Your task to perform on an android device: turn notification dots off Image 0: 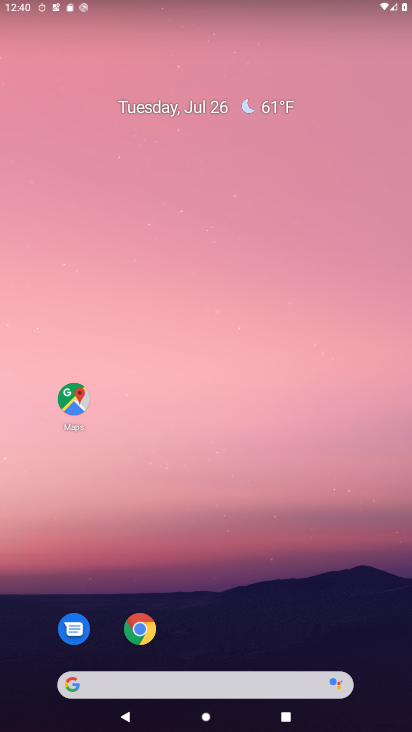
Step 0: drag from (205, 630) to (174, 278)
Your task to perform on an android device: turn notification dots off Image 1: 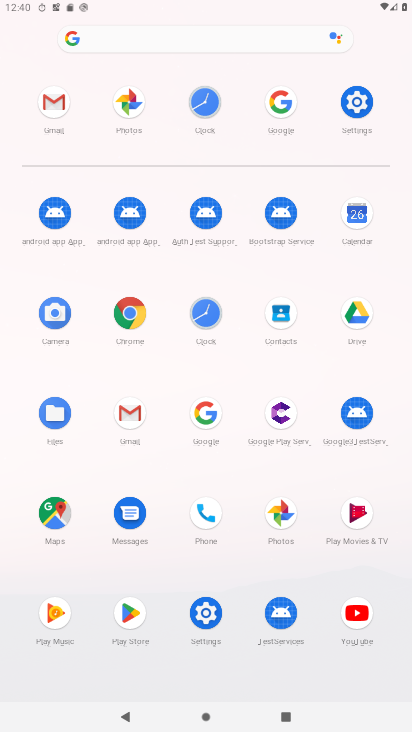
Step 1: click (359, 101)
Your task to perform on an android device: turn notification dots off Image 2: 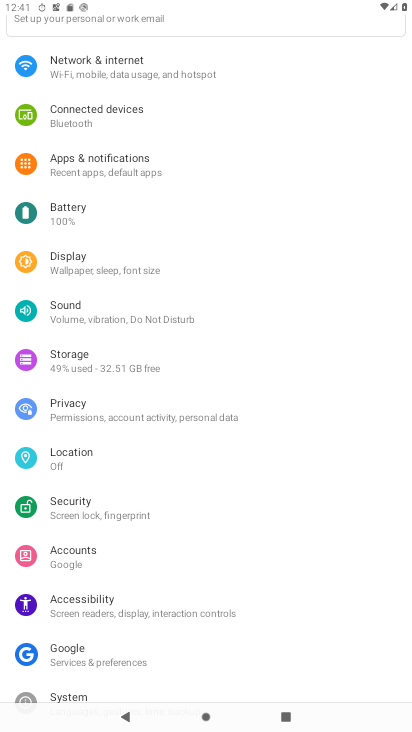
Step 2: click (122, 174)
Your task to perform on an android device: turn notification dots off Image 3: 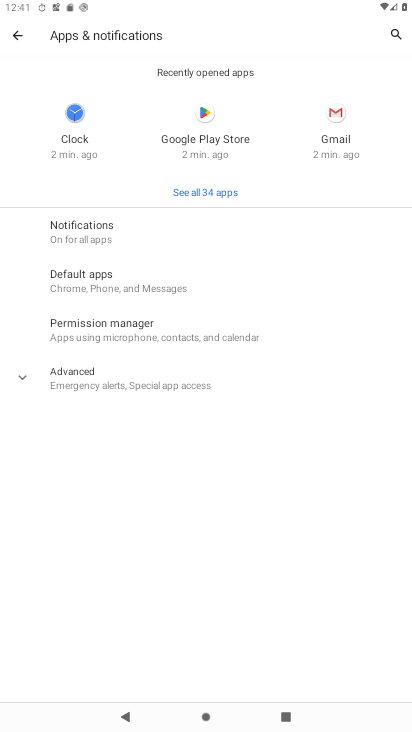
Step 3: click (80, 242)
Your task to perform on an android device: turn notification dots off Image 4: 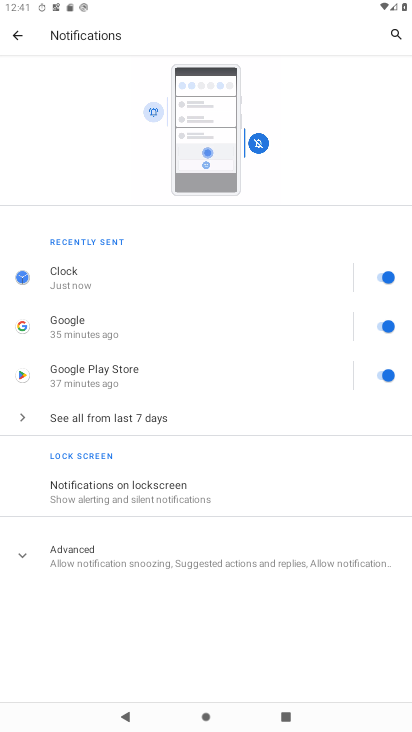
Step 4: click (109, 542)
Your task to perform on an android device: turn notification dots off Image 5: 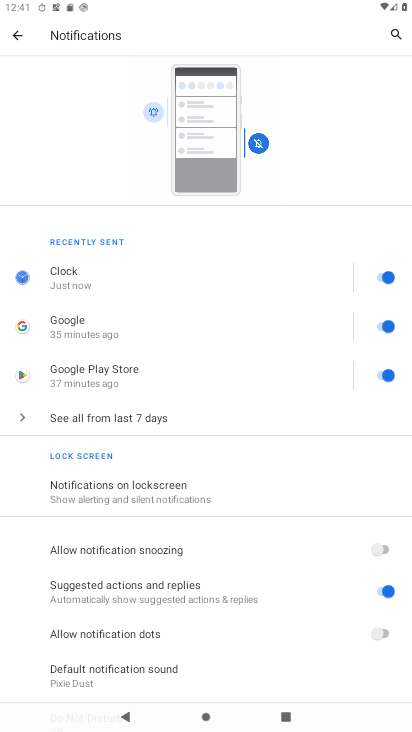
Step 5: task complete